Your task to perform on an android device: Open internet settings Image 0: 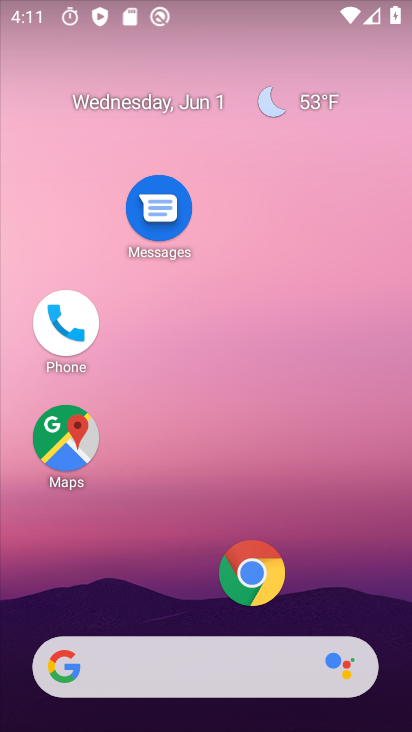
Step 0: drag from (250, 5) to (223, 558)
Your task to perform on an android device: Open internet settings Image 1: 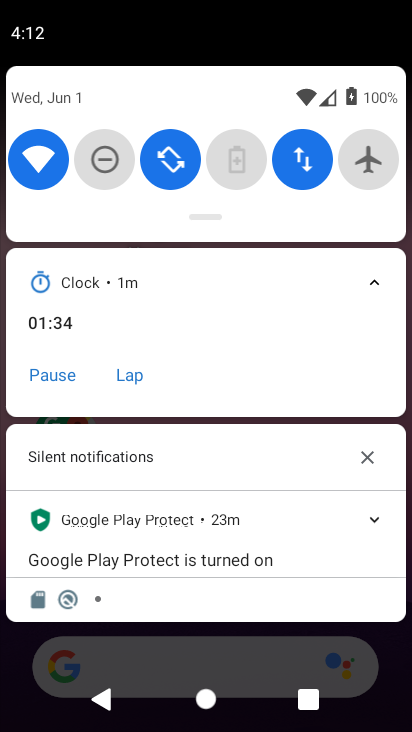
Step 1: click (308, 152)
Your task to perform on an android device: Open internet settings Image 2: 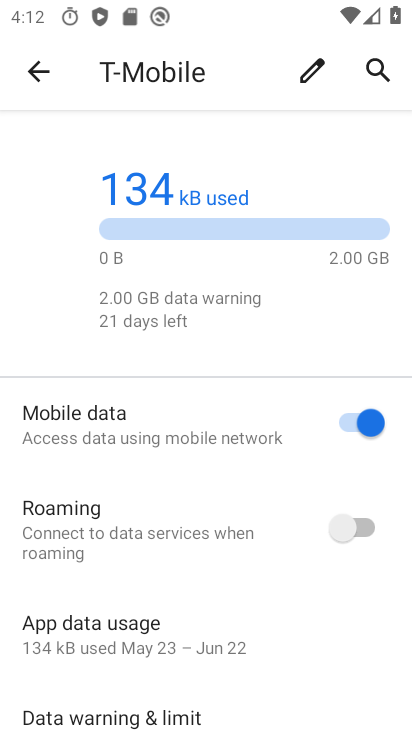
Step 2: task complete